Your task to perform on an android device: Open calendar and show me the fourth week of next month Image 0: 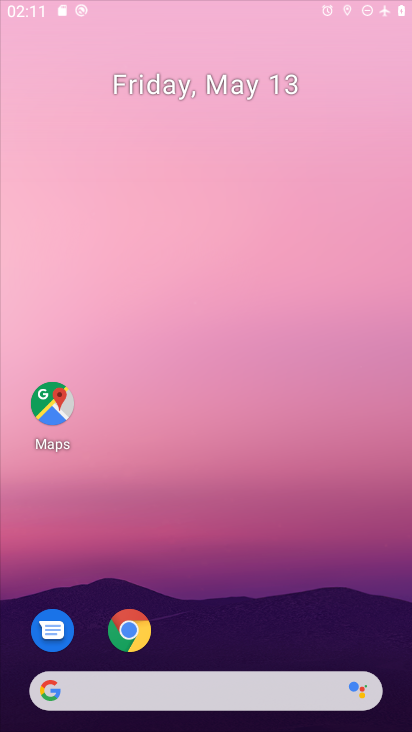
Step 0: drag from (313, 685) to (174, 153)
Your task to perform on an android device: Open calendar and show me the fourth week of next month Image 1: 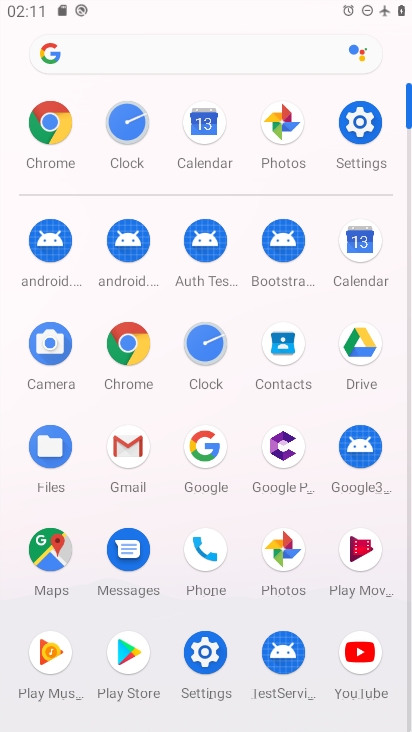
Step 1: click (342, 131)
Your task to perform on an android device: Open calendar and show me the fourth week of next month Image 2: 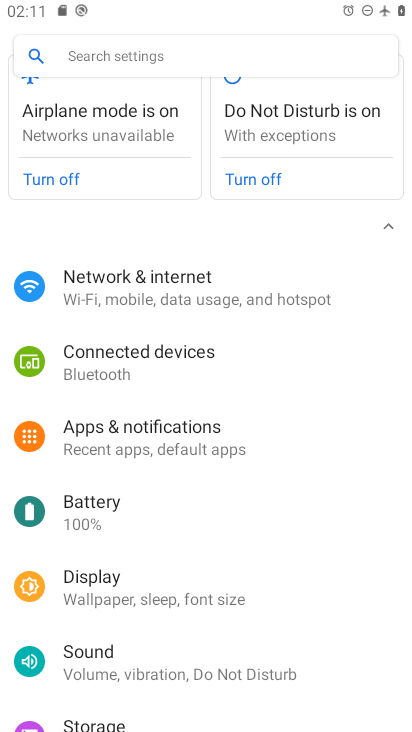
Step 2: click (140, 56)
Your task to perform on an android device: Open calendar and show me the fourth week of next month Image 3: 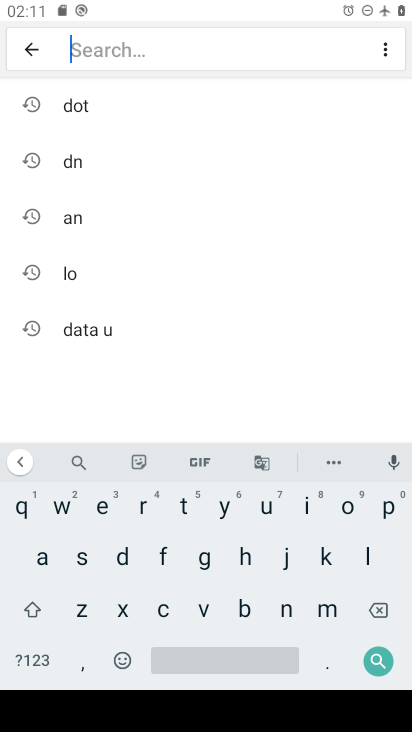
Step 3: press home button
Your task to perform on an android device: Open calendar and show me the fourth week of next month Image 4: 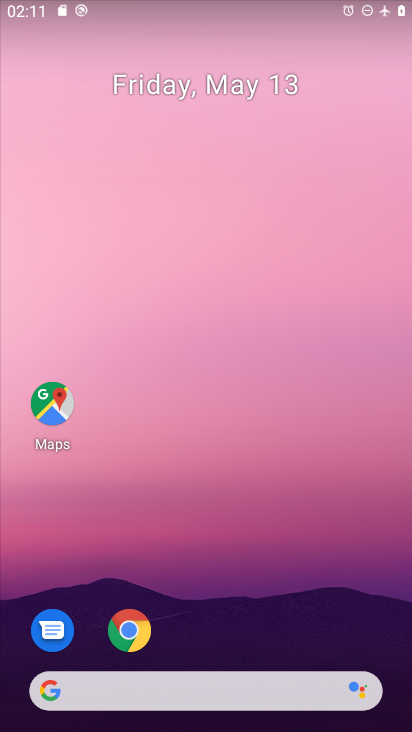
Step 4: drag from (254, 647) to (225, 113)
Your task to perform on an android device: Open calendar and show me the fourth week of next month Image 5: 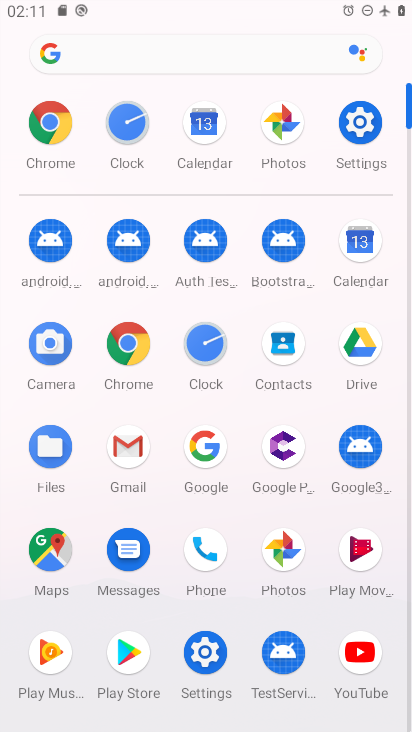
Step 5: click (358, 254)
Your task to perform on an android device: Open calendar and show me the fourth week of next month Image 6: 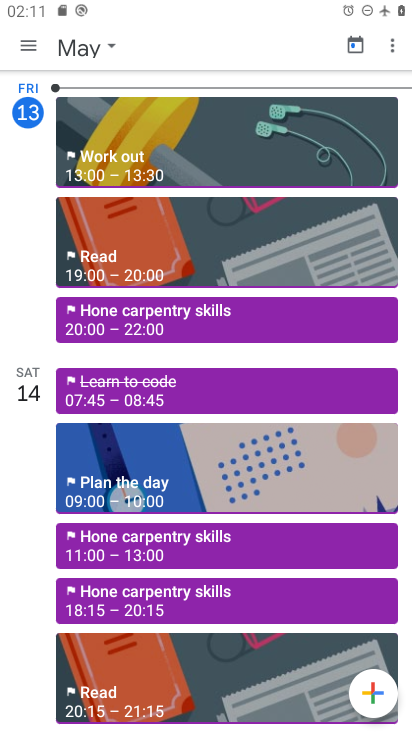
Step 6: click (38, 49)
Your task to perform on an android device: Open calendar and show me the fourth week of next month Image 7: 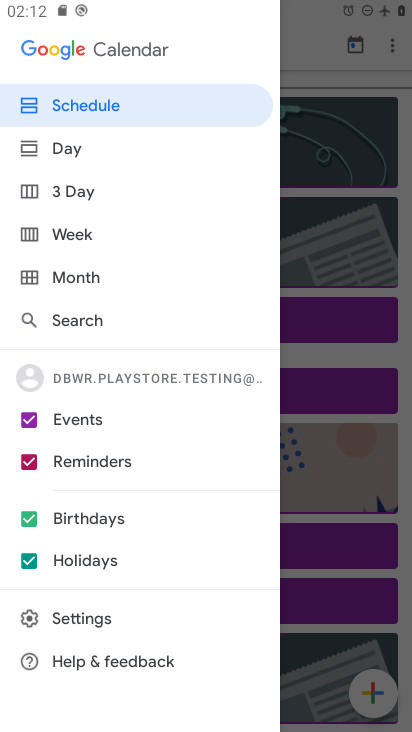
Step 7: click (104, 276)
Your task to perform on an android device: Open calendar and show me the fourth week of next month Image 8: 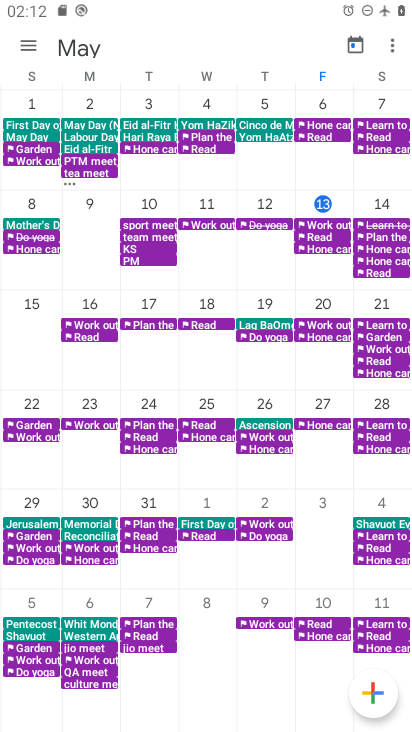
Step 8: drag from (360, 410) to (14, 403)
Your task to perform on an android device: Open calendar and show me the fourth week of next month Image 9: 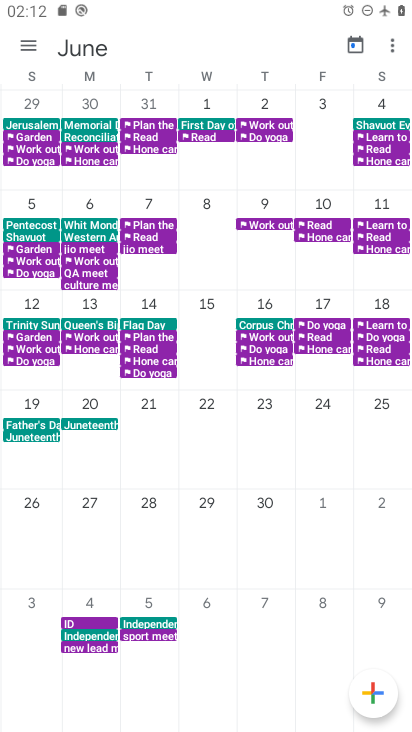
Step 9: click (89, 408)
Your task to perform on an android device: Open calendar and show me the fourth week of next month Image 10: 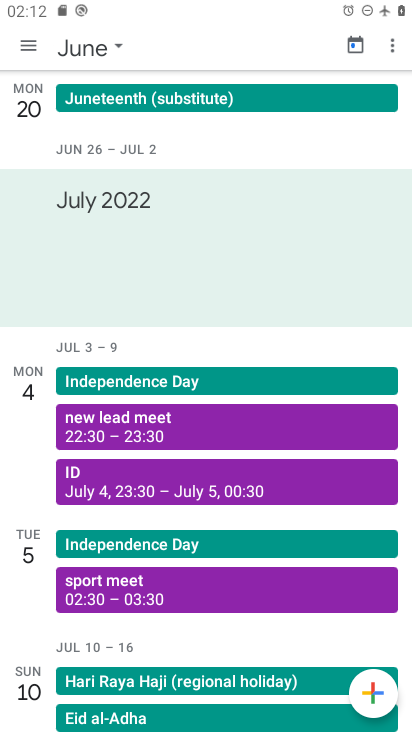
Step 10: task complete